Your task to perform on an android device: Go to settings Image 0: 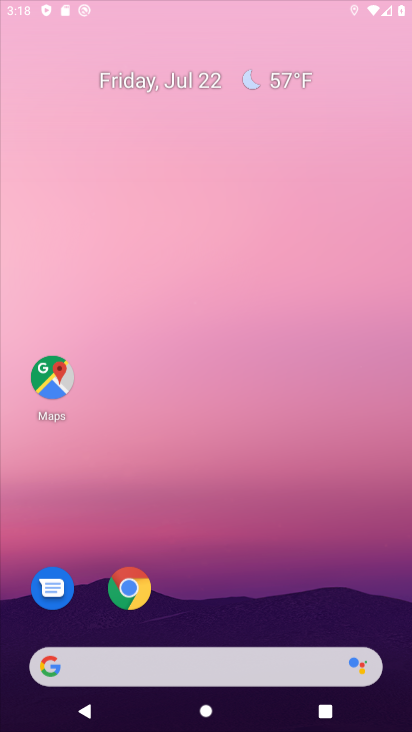
Step 0: drag from (230, 632) to (215, 112)
Your task to perform on an android device: Go to settings Image 1: 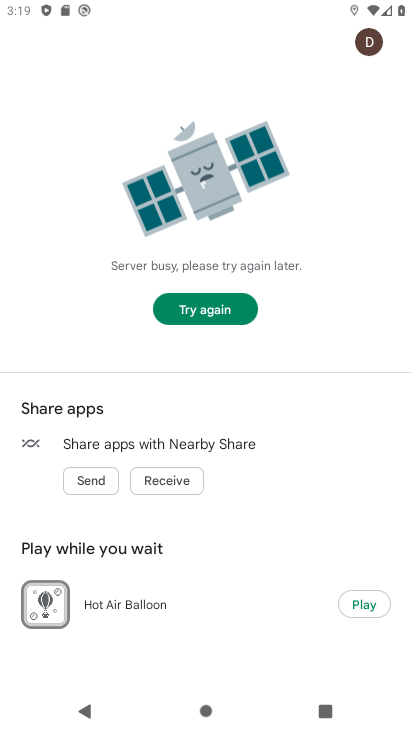
Step 1: press home button
Your task to perform on an android device: Go to settings Image 2: 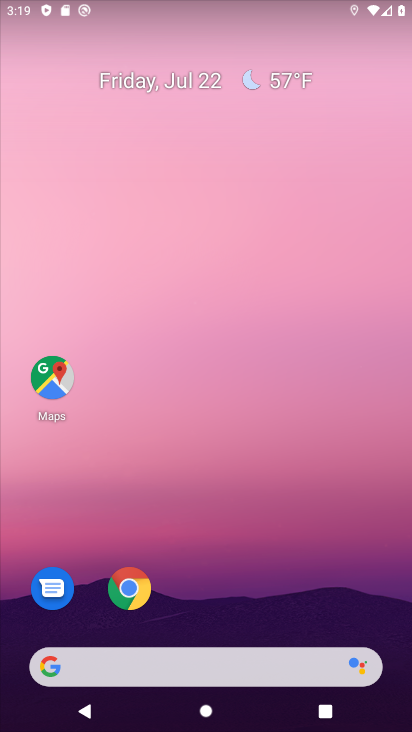
Step 2: drag from (207, 635) to (137, 12)
Your task to perform on an android device: Go to settings Image 3: 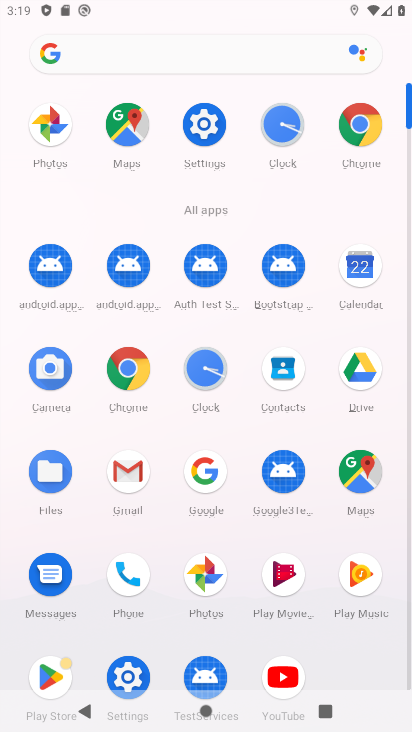
Step 3: click (143, 659)
Your task to perform on an android device: Go to settings Image 4: 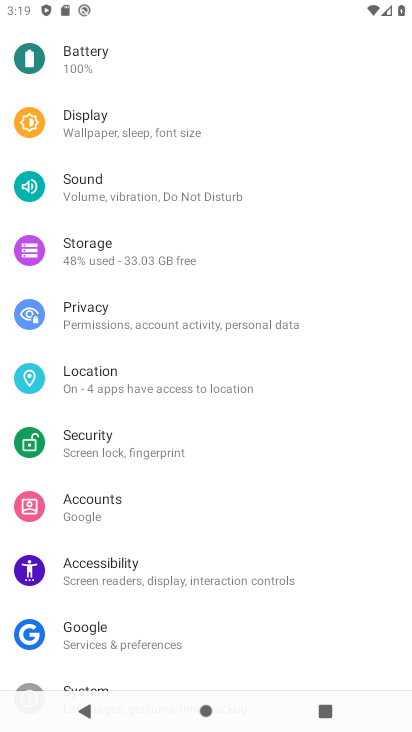
Step 4: task complete